Your task to perform on an android device: Open network settings Image 0: 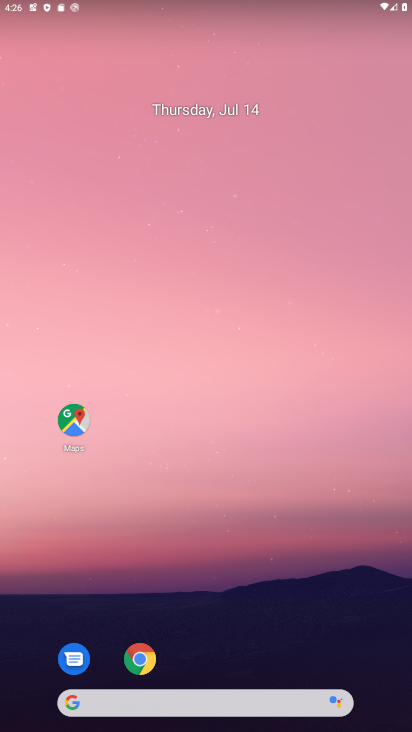
Step 0: press home button
Your task to perform on an android device: Open network settings Image 1: 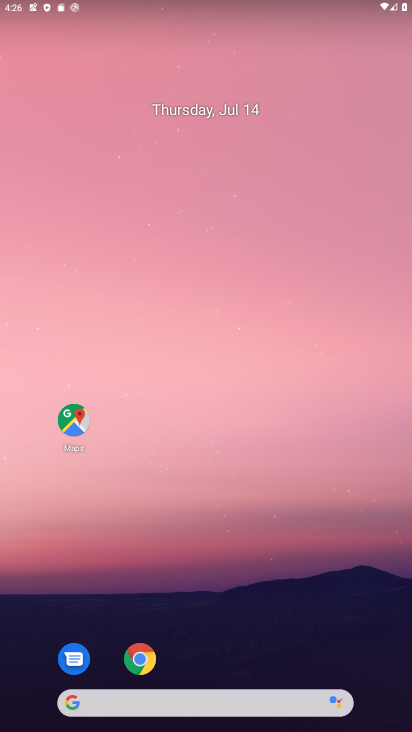
Step 1: drag from (212, 659) to (243, 71)
Your task to perform on an android device: Open network settings Image 2: 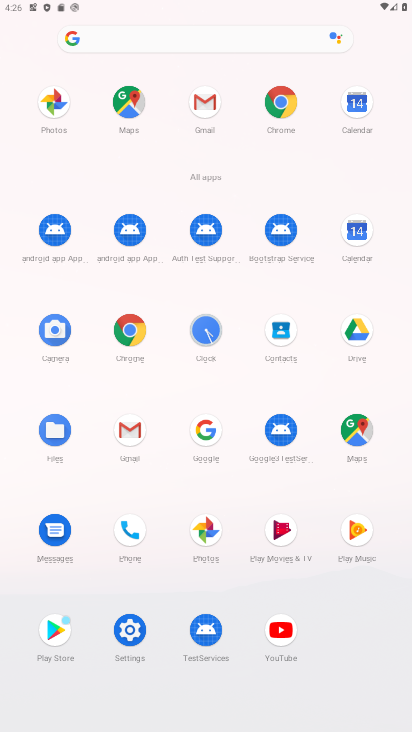
Step 2: click (128, 633)
Your task to perform on an android device: Open network settings Image 3: 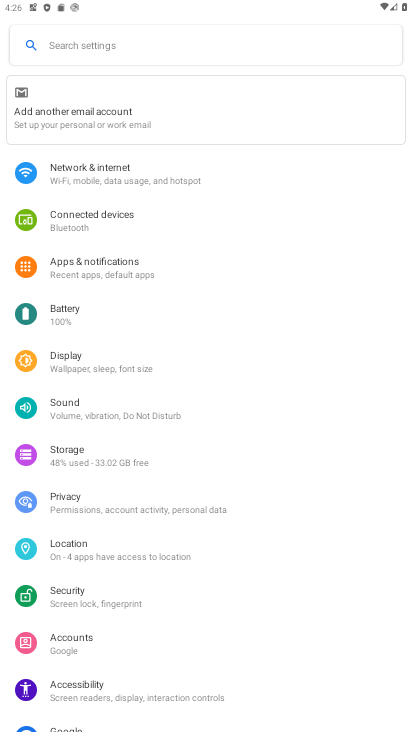
Step 3: click (104, 164)
Your task to perform on an android device: Open network settings Image 4: 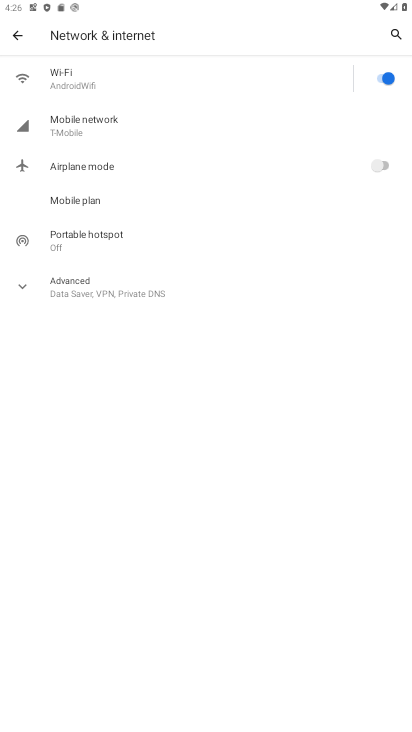
Step 4: click (83, 278)
Your task to perform on an android device: Open network settings Image 5: 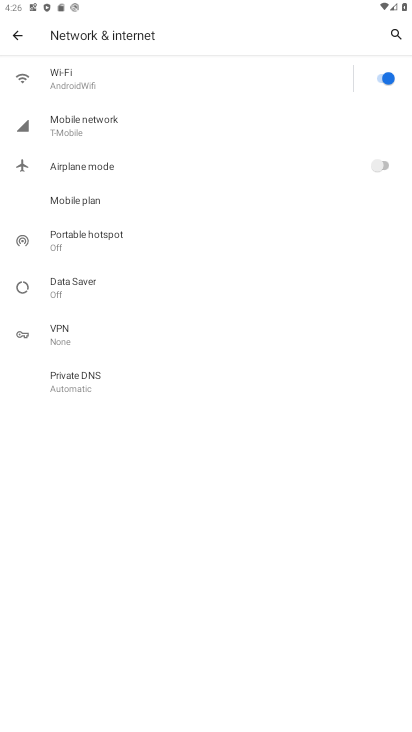
Step 5: task complete